Your task to perform on an android device: Open Reddit.com Image 0: 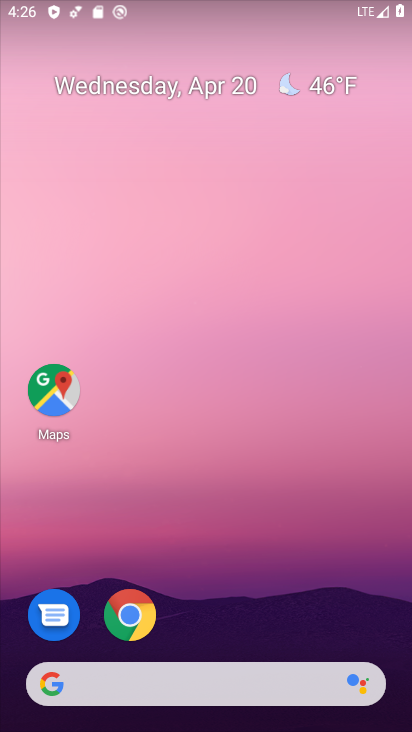
Step 0: click (127, 606)
Your task to perform on an android device: Open Reddit.com Image 1: 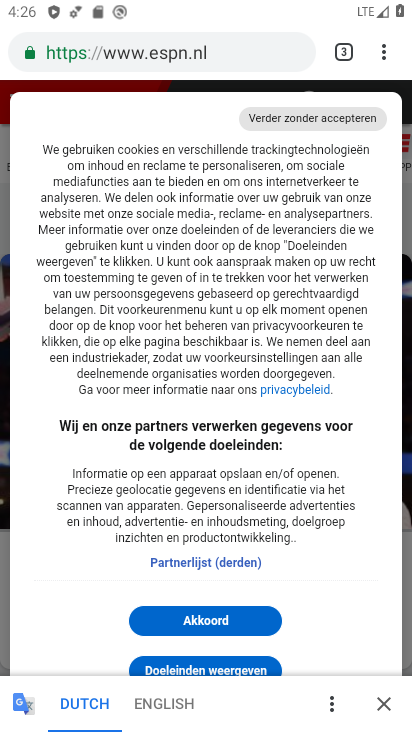
Step 1: click (342, 51)
Your task to perform on an android device: Open Reddit.com Image 2: 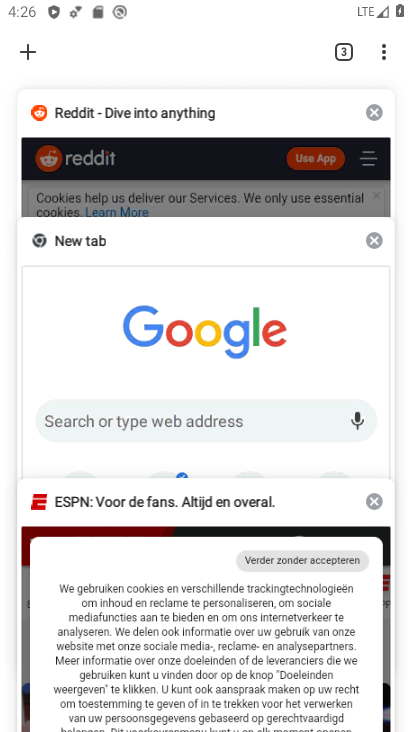
Step 2: click (65, 118)
Your task to perform on an android device: Open Reddit.com Image 3: 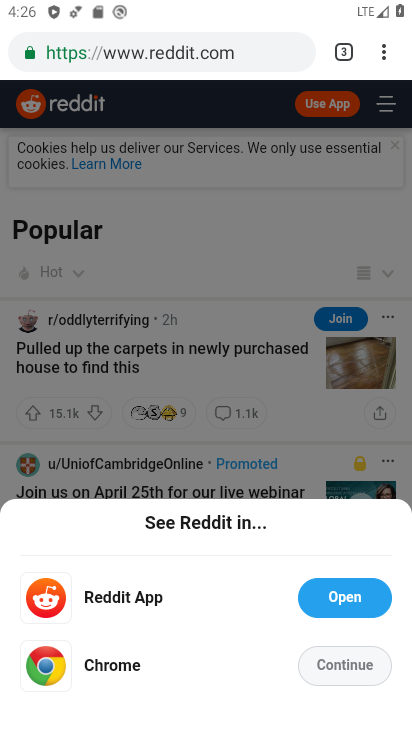
Step 3: task complete